Your task to perform on an android device: Open Reddit.com Image 0: 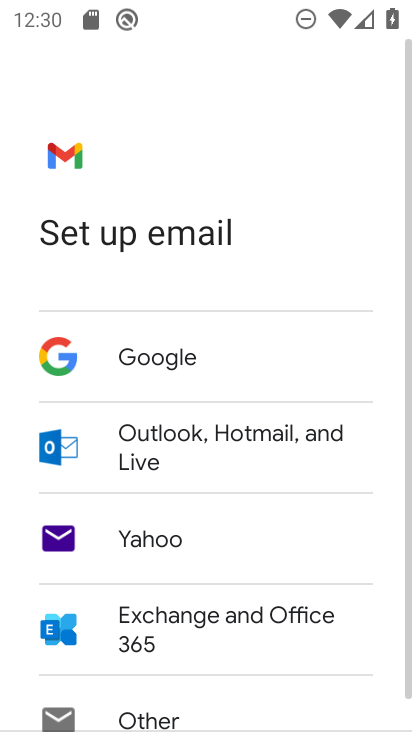
Step 0: press home button
Your task to perform on an android device: Open Reddit.com Image 1: 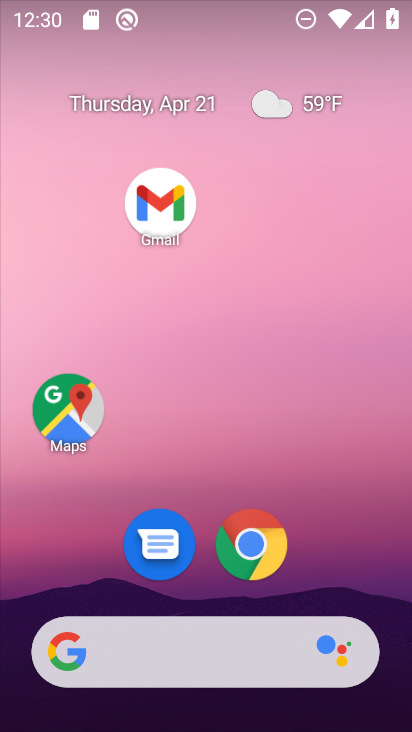
Step 1: click (251, 538)
Your task to perform on an android device: Open Reddit.com Image 2: 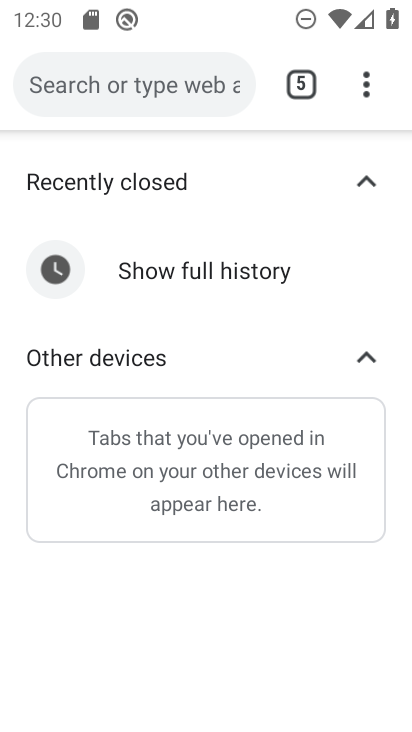
Step 2: click (300, 95)
Your task to perform on an android device: Open Reddit.com Image 3: 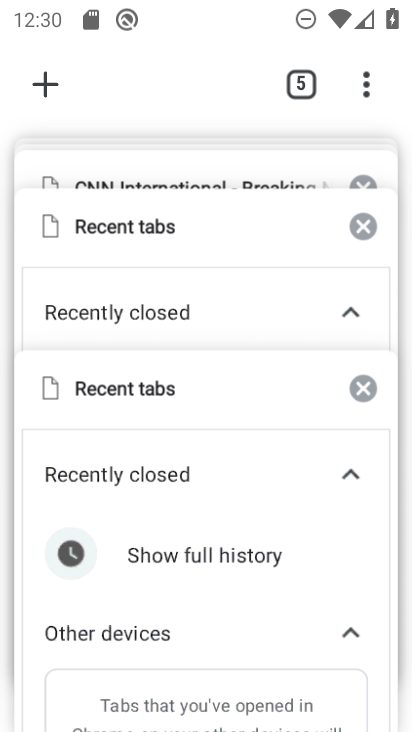
Step 3: click (62, 85)
Your task to perform on an android device: Open Reddit.com Image 4: 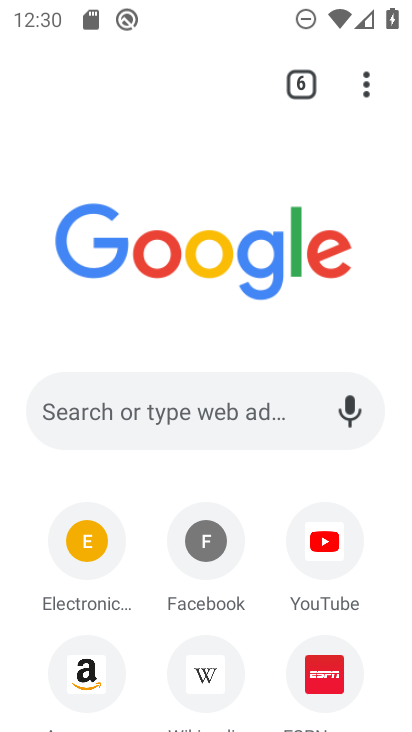
Step 4: click (172, 387)
Your task to perform on an android device: Open Reddit.com Image 5: 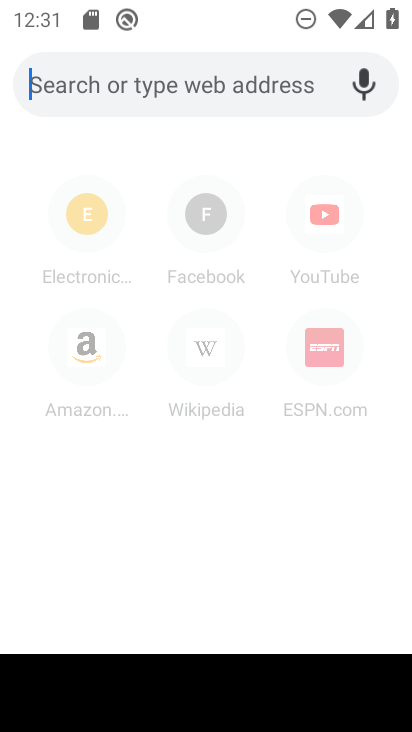
Step 5: type "reddit"
Your task to perform on an android device: Open Reddit.com Image 6: 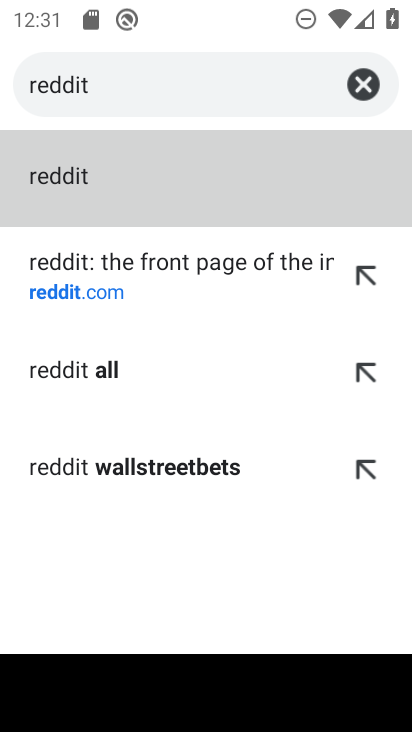
Step 6: click (101, 313)
Your task to perform on an android device: Open Reddit.com Image 7: 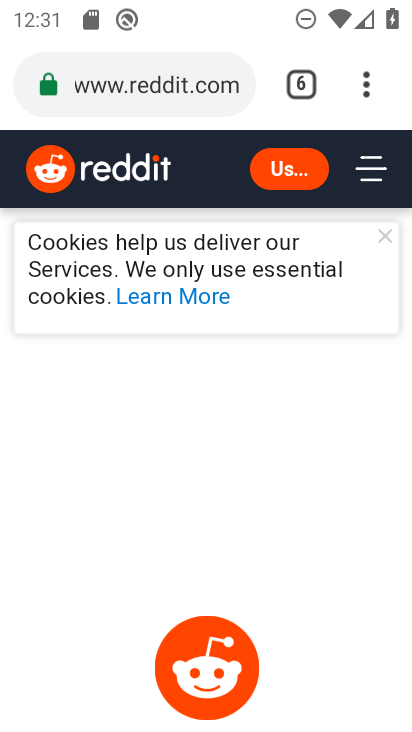
Step 7: task complete